Your task to perform on an android device: Go to location settings Image 0: 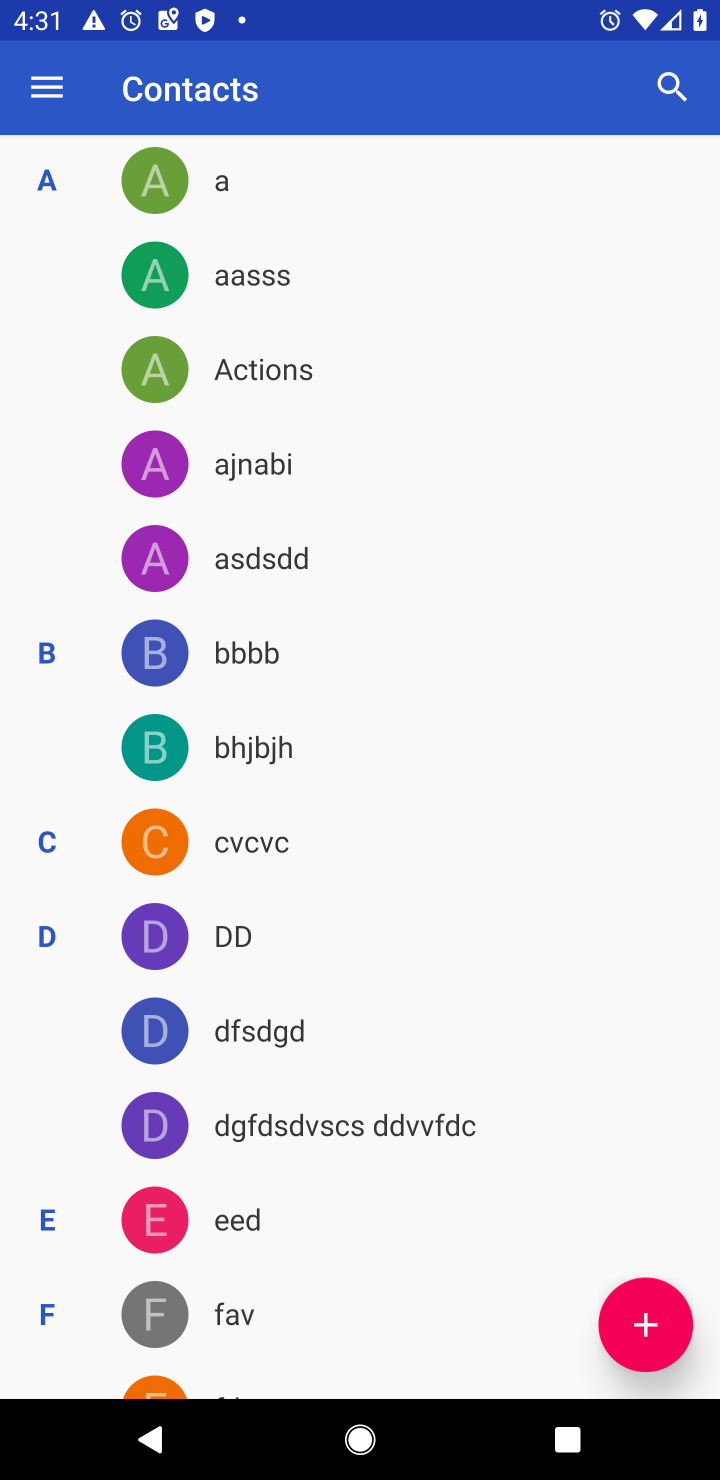
Step 0: press home button
Your task to perform on an android device: Go to location settings Image 1: 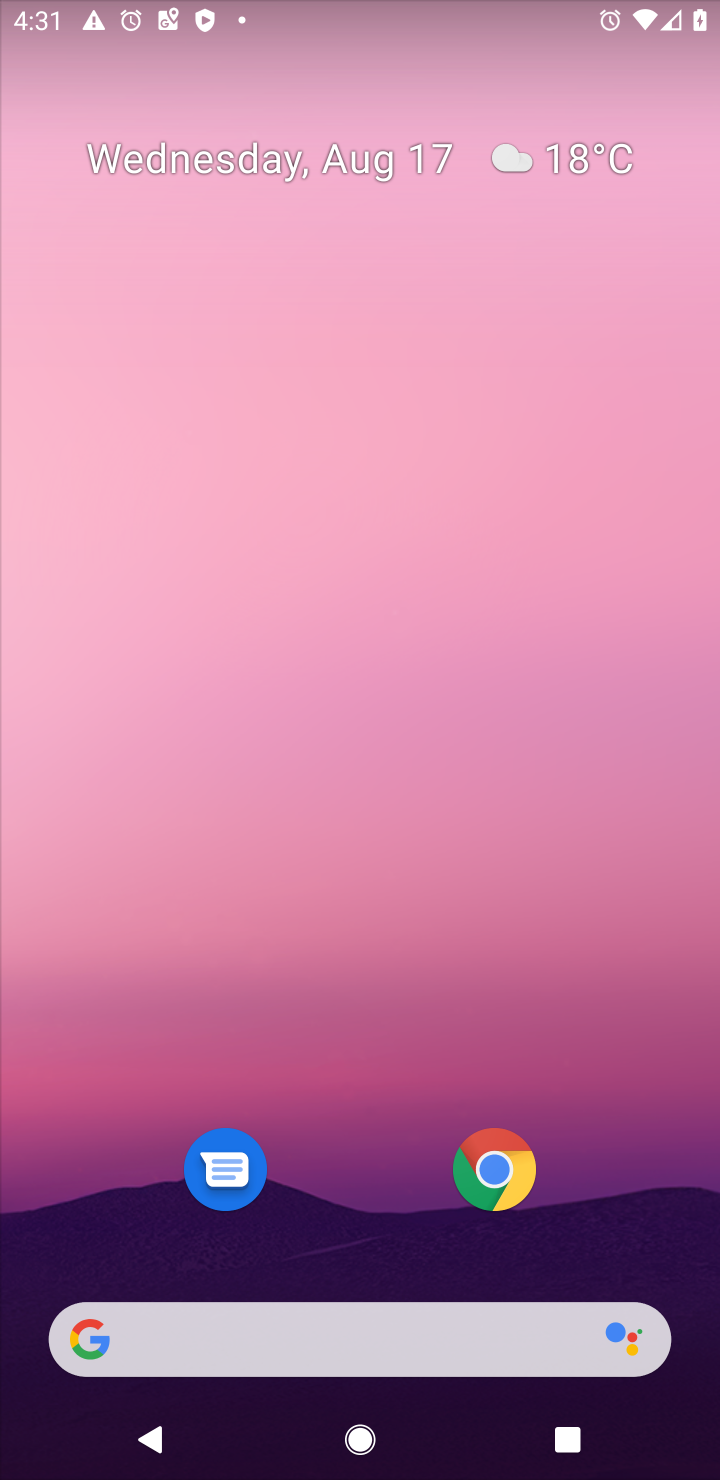
Step 1: drag from (368, 1108) to (395, 104)
Your task to perform on an android device: Go to location settings Image 2: 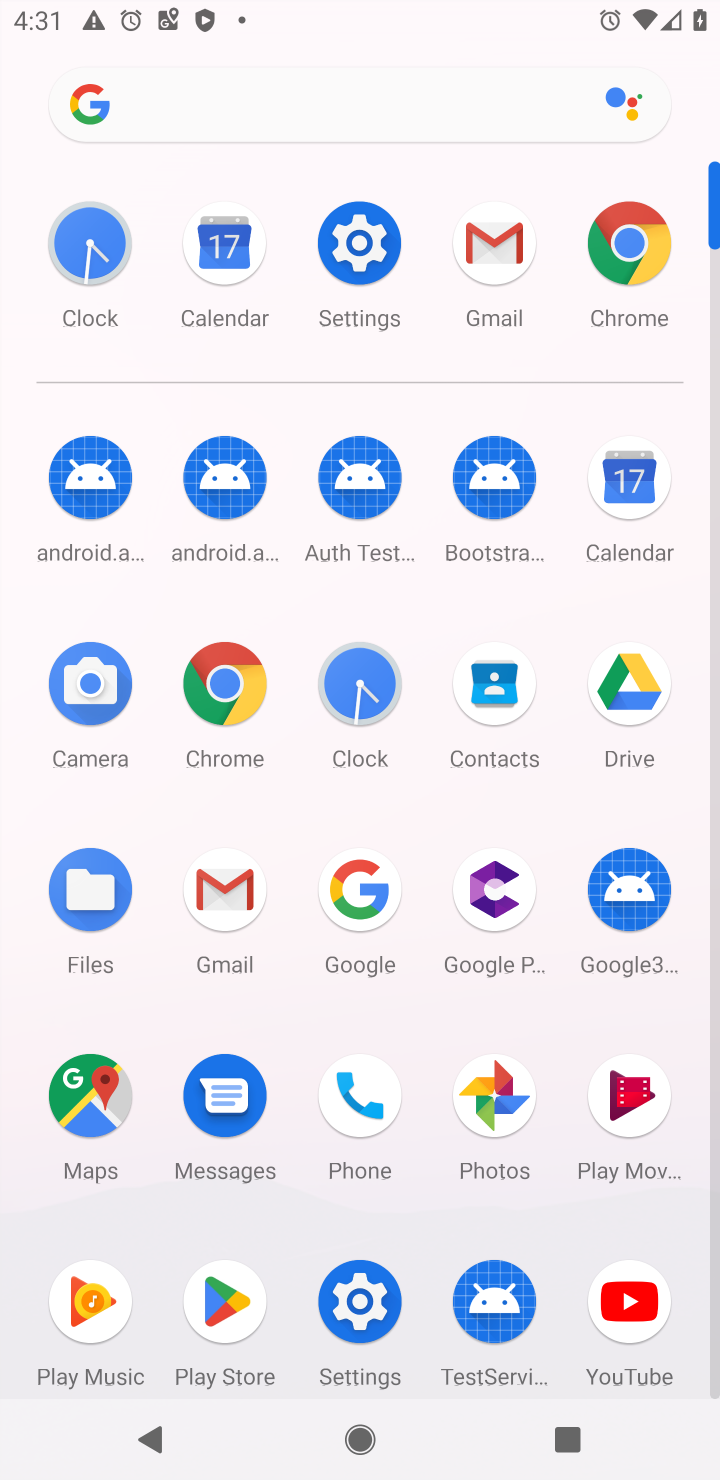
Step 2: click (352, 1286)
Your task to perform on an android device: Go to location settings Image 3: 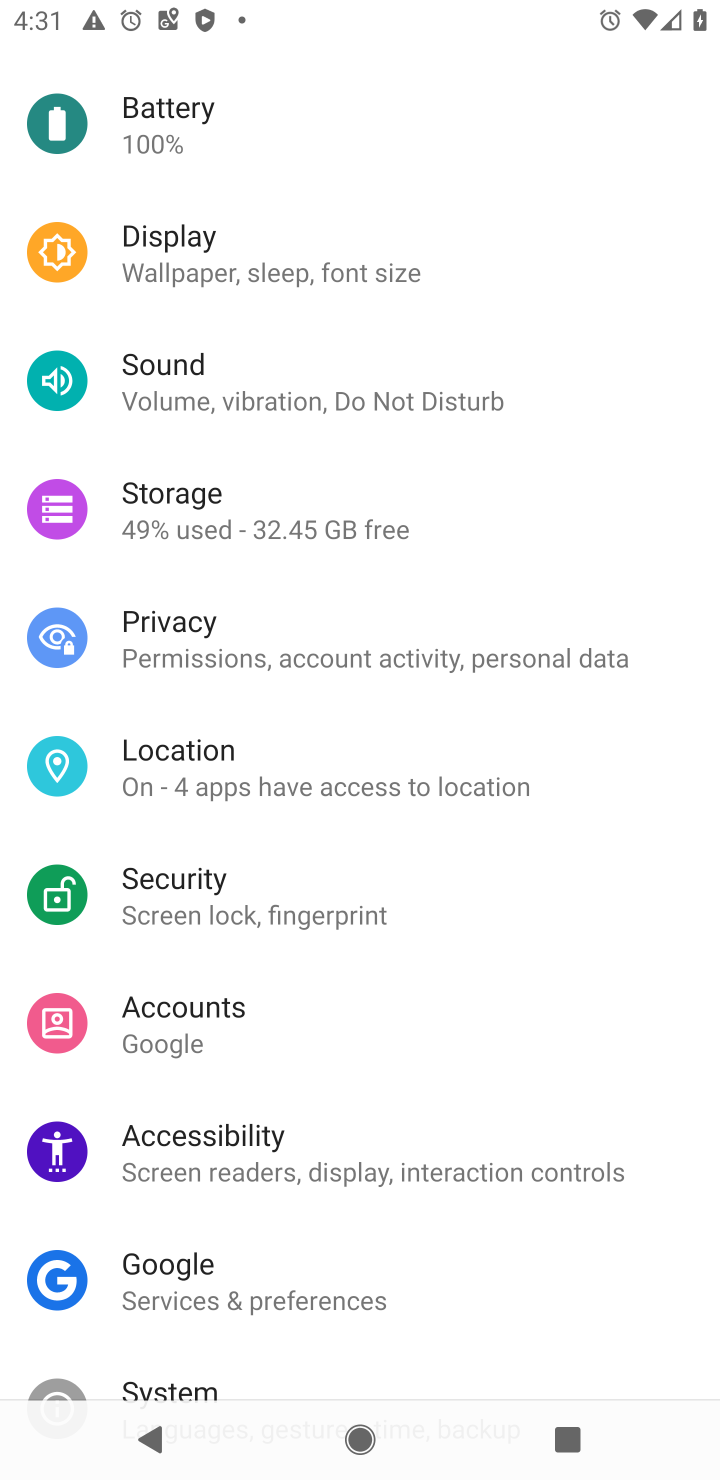
Step 3: click (181, 779)
Your task to perform on an android device: Go to location settings Image 4: 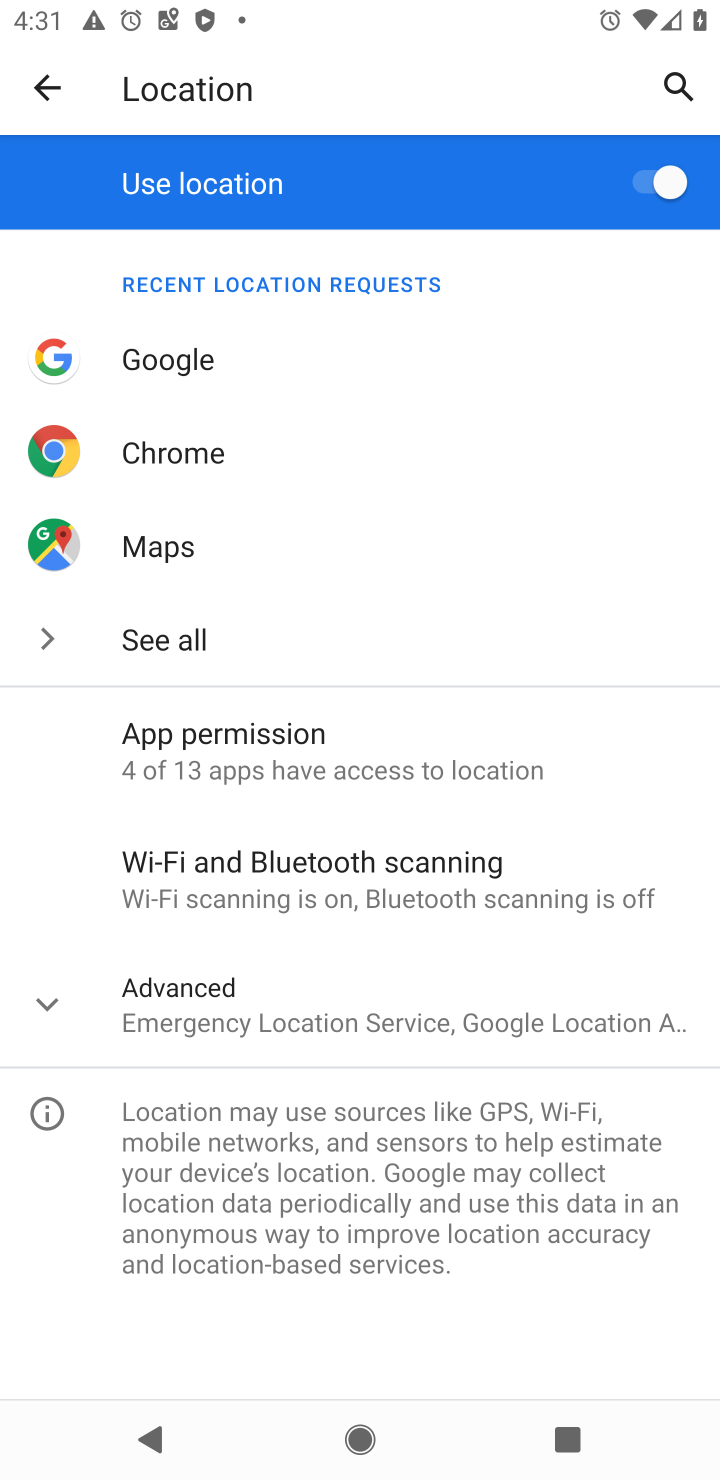
Step 4: task complete